Your task to perform on an android device: turn on notifications settings in the gmail app Image 0: 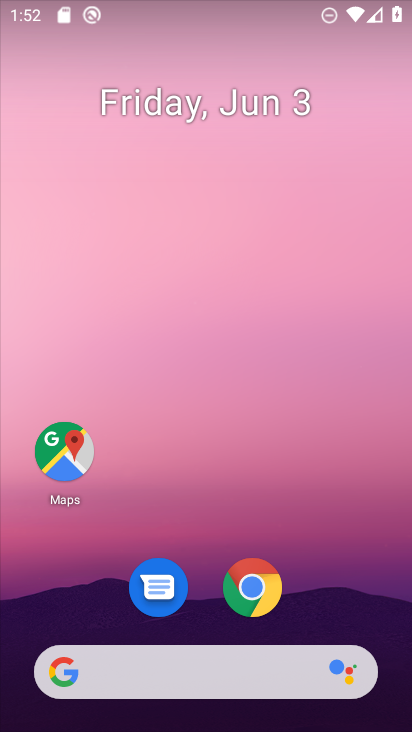
Step 0: drag from (301, 602) to (328, 9)
Your task to perform on an android device: turn on notifications settings in the gmail app Image 1: 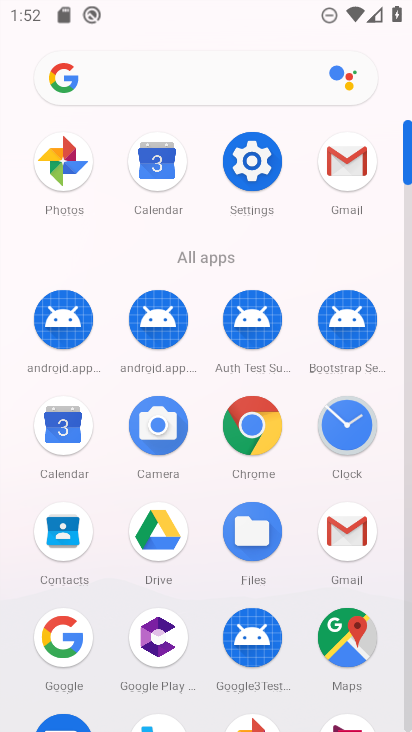
Step 1: click (350, 163)
Your task to perform on an android device: turn on notifications settings in the gmail app Image 2: 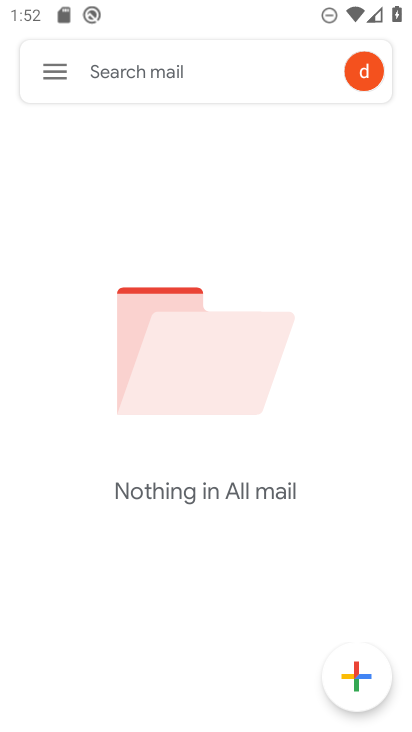
Step 2: click (45, 74)
Your task to perform on an android device: turn on notifications settings in the gmail app Image 3: 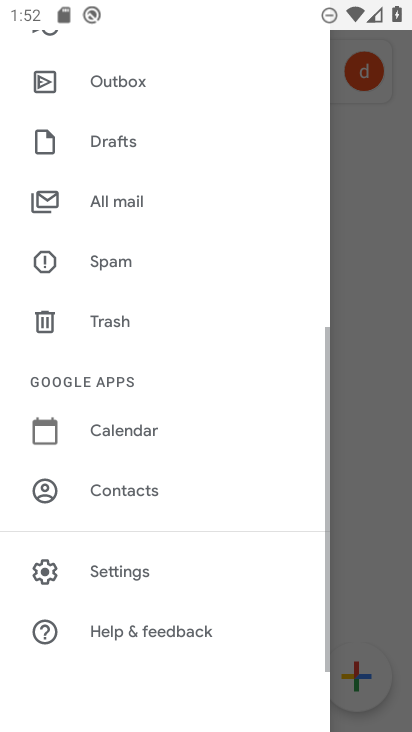
Step 3: click (107, 565)
Your task to perform on an android device: turn on notifications settings in the gmail app Image 4: 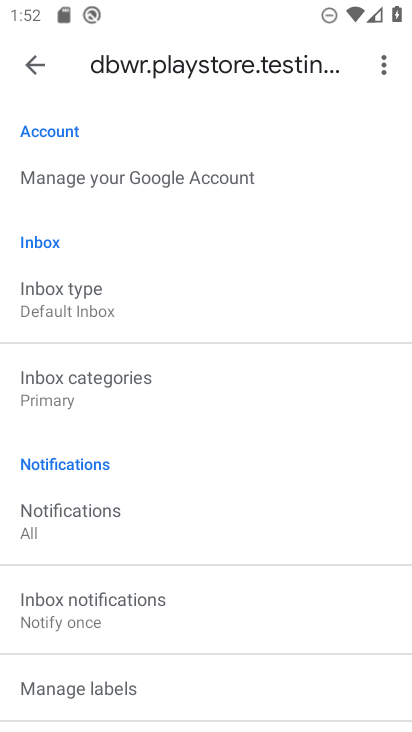
Step 4: drag from (90, 658) to (142, 253)
Your task to perform on an android device: turn on notifications settings in the gmail app Image 5: 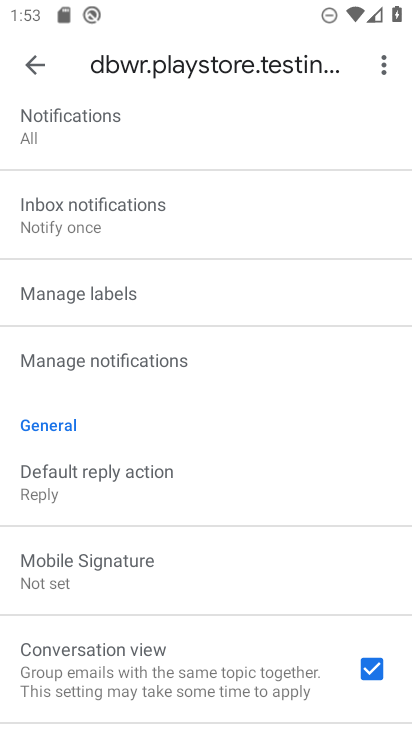
Step 5: click (110, 345)
Your task to perform on an android device: turn on notifications settings in the gmail app Image 6: 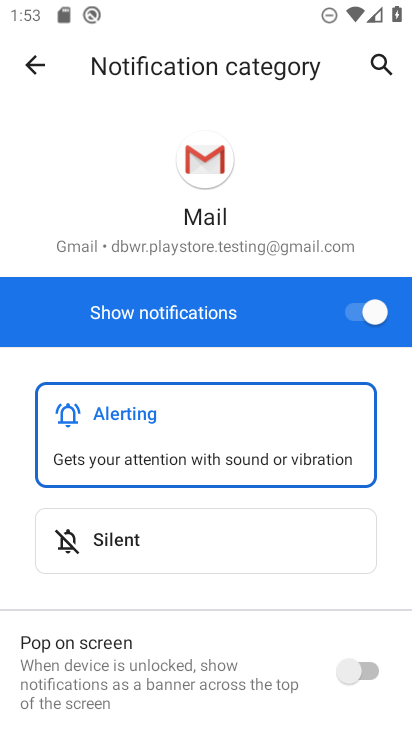
Step 6: task complete